Your task to perform on an android device: toggle airplane mode Image 0: 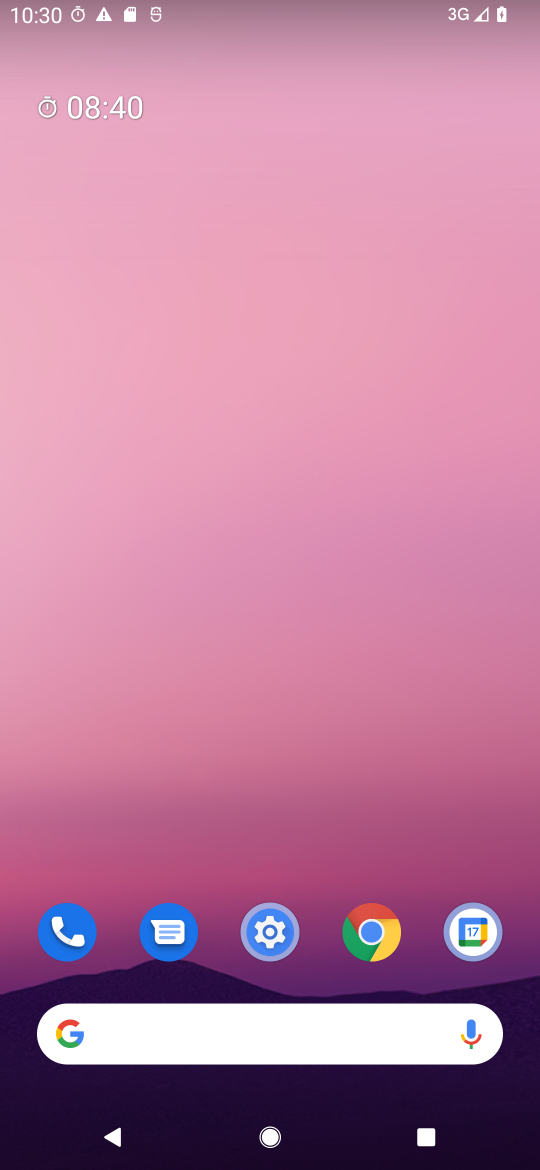
Step 0: click (256, 932)
Your task to perform on an android device: toggle airplane mode Image 1: 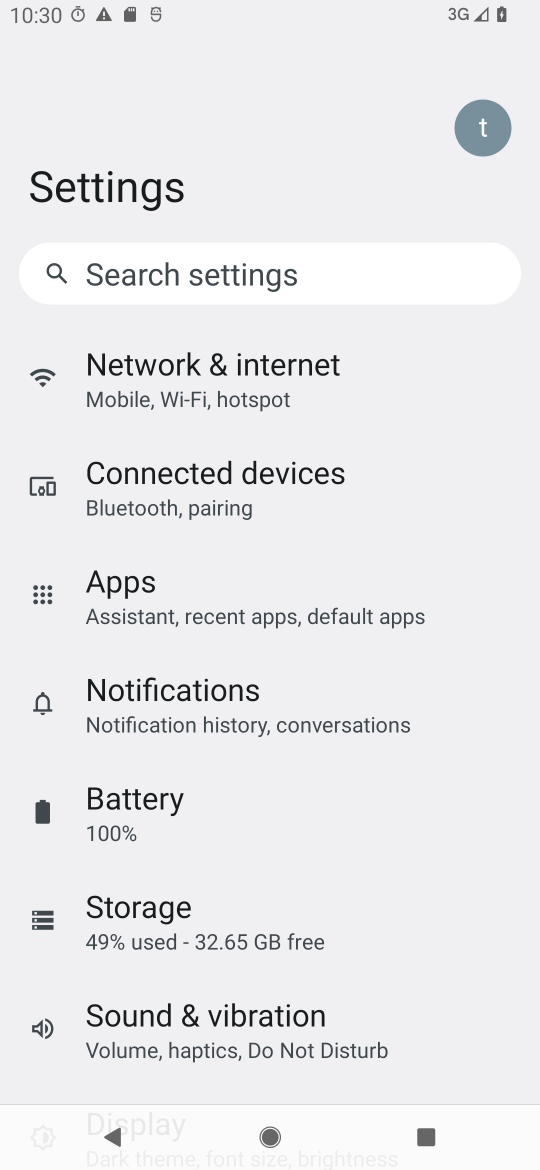
Step 1: click (190, 400)
Your task to perform on an android device: toggle airplane mode Image 2: 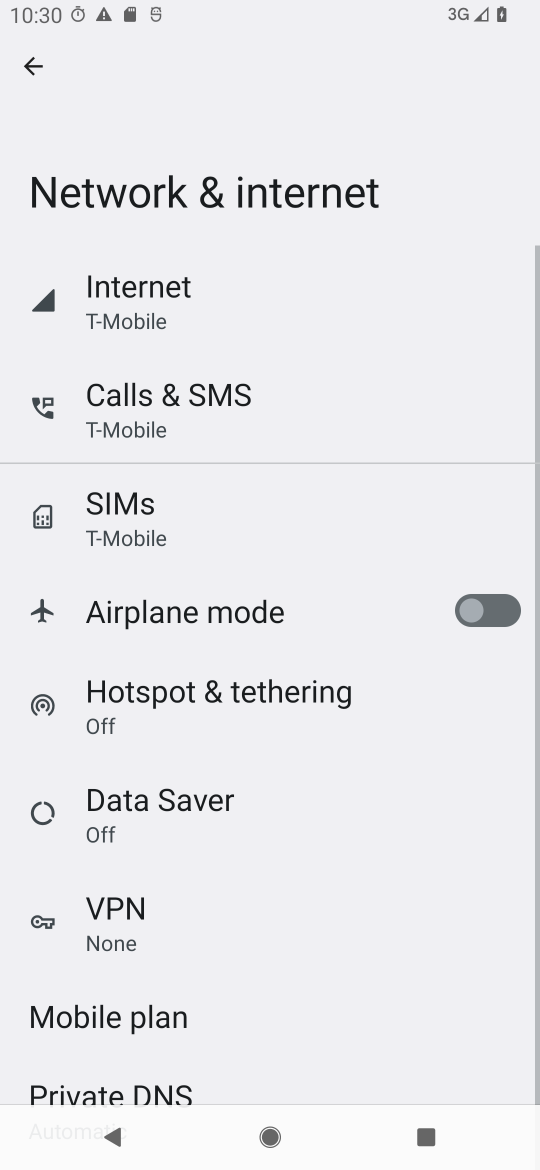
Step 2: click (507, 601)
Your task to perform on an android device: toggle airplane mode Image 3: 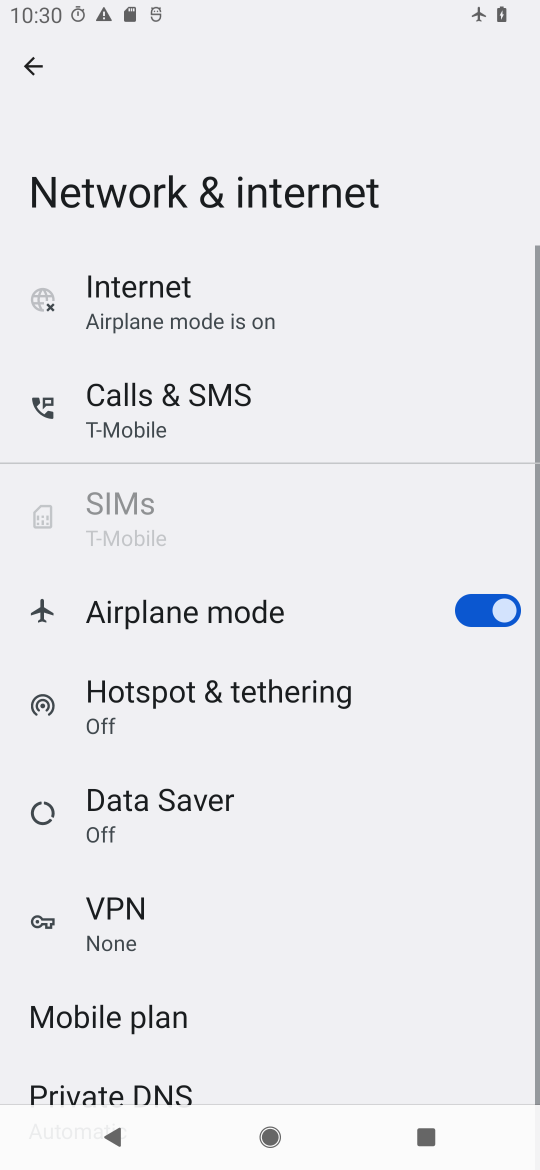
Step 3: task complete